Your task to perform on an android device: Go to notification settings Image 0: 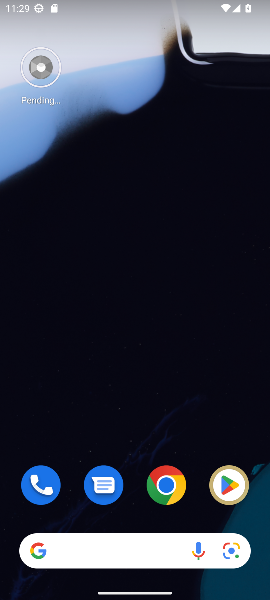
Step 0: drag from (132, 519) to (136, 127)
Your task to perform on an android device: Go to notification settings Image 1: 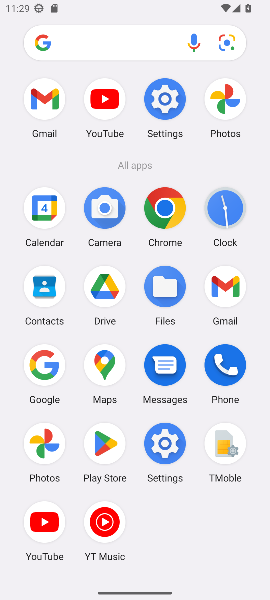
Step 1: click (160, 102)
Your task to perform on an android device: Go to notification settings Image 2: 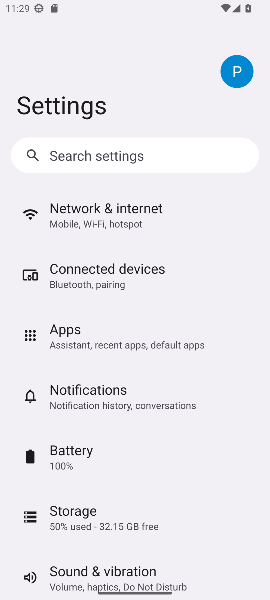
Step 2: click (91, 393)
Your task to perform on an android device: Go to notification settings Image 3: 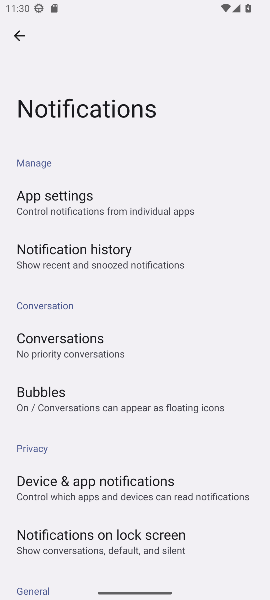
Step 3: task complete